Your task to perform on an android device: What is the news today? Image 0: 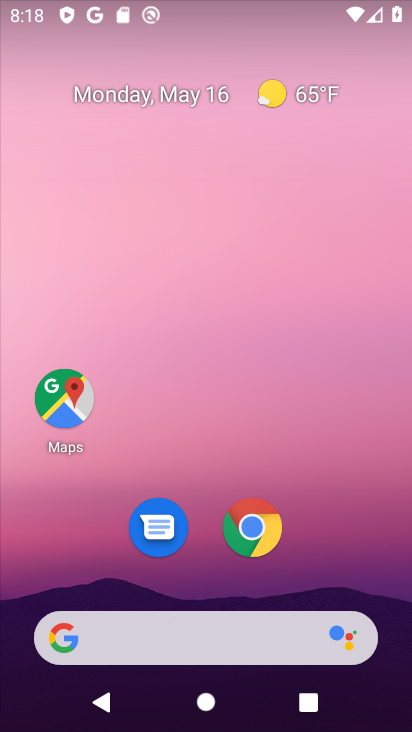
Step 0: drag from (325, 393) to (329, 212)
Your task to perform on an android device: What is the news today? Image 1: 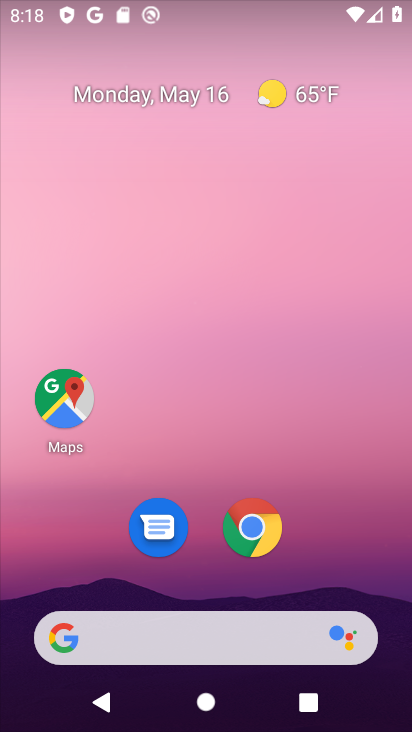
Step 1: click (259, 544)
Your task to perform on an android device: What is the news today? Image 2: 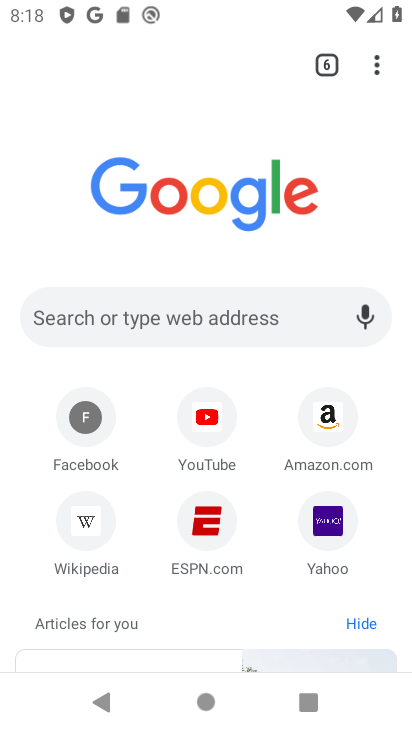
Step 2: click (166, 298)
Your task to perform on an android device: What is the news today? Image 3: 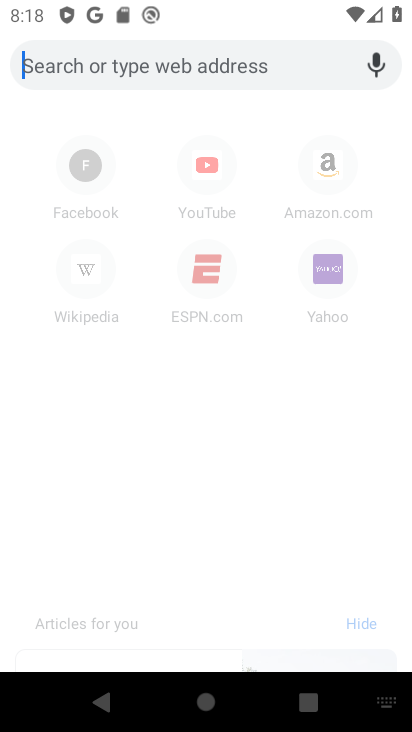
Step 3: type "What is the news today?"
Your task to perform on an android device: What is the news today? Image 4: 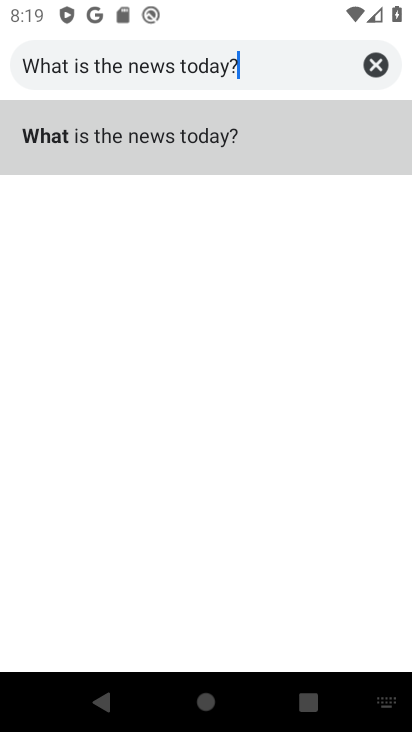
Step 4: click (218, 150)
Your task to perform on an android device: What is the news today? Image 5: 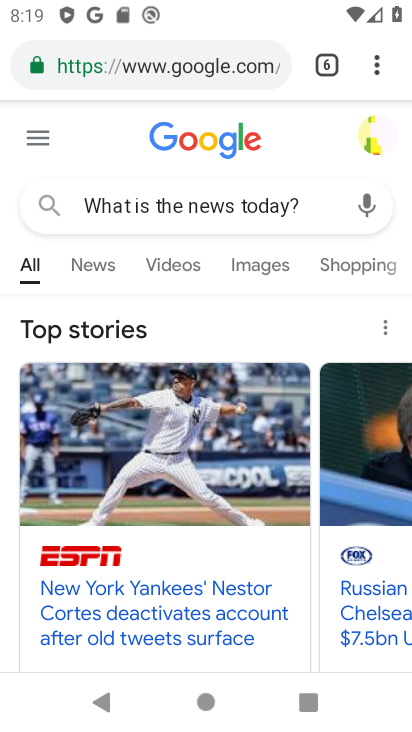
Step 5: task complete